Your task to perform on an android device: set the stopwatch Image 0: 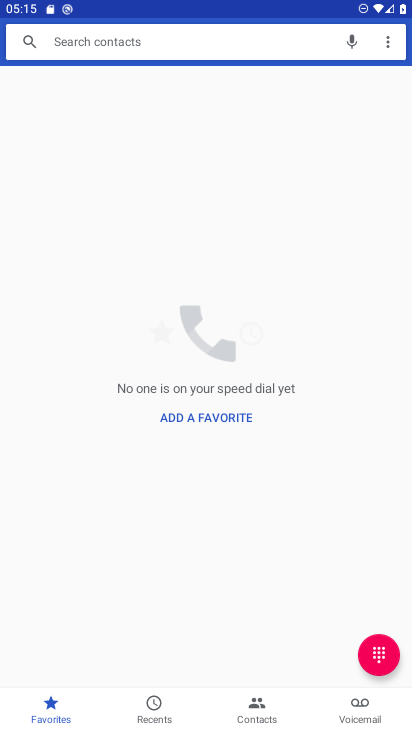
Step 0: press home button
Your task to perform on an android device: set the stopwatch Image 1: 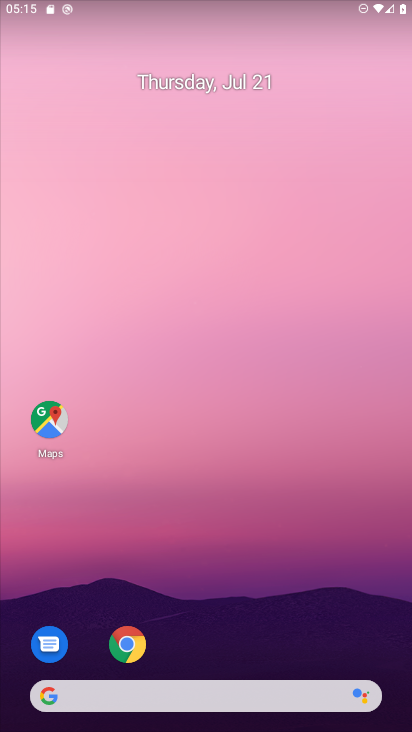
Step 1: drag from (211, 621) to (210, 41)
Your task to perform on an android device: set the stopwatch Image 2: 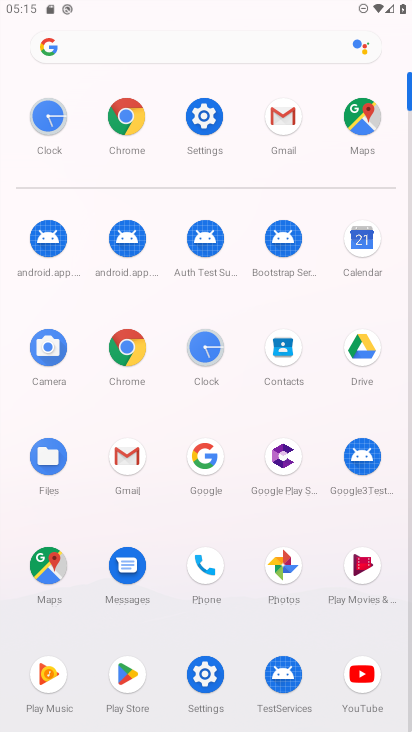
Step 2: click (202, 354)
Your task to perform on an android device: set the stopwatch Image 3: 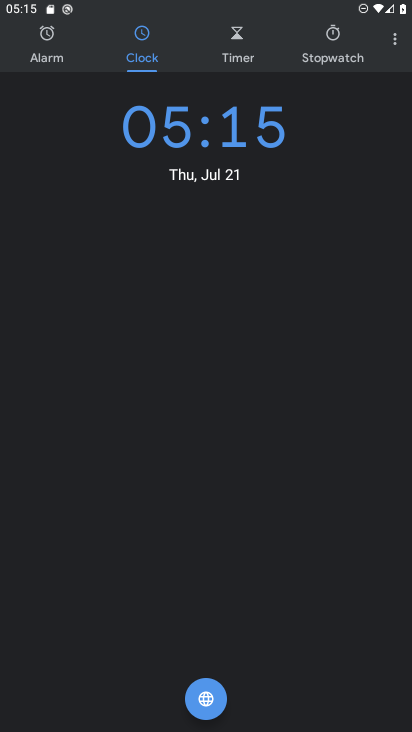
Step 3: click (337, 45)
Your task to perform on an android device: set the stopwatch Image 4: 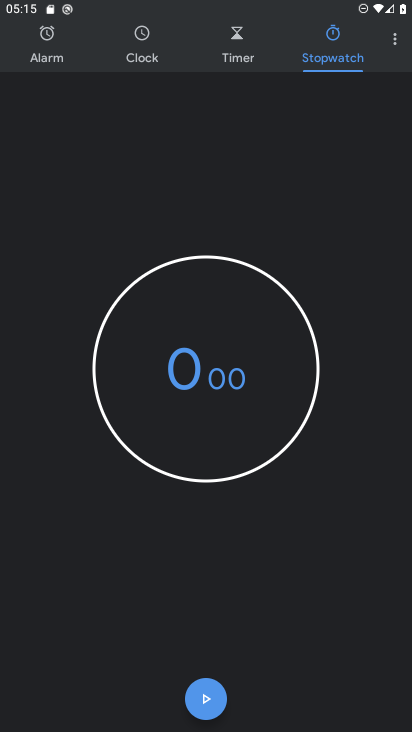
Step 4: click (197, 690)
Your task to perform on an android device: set the stopwatch Image 5: 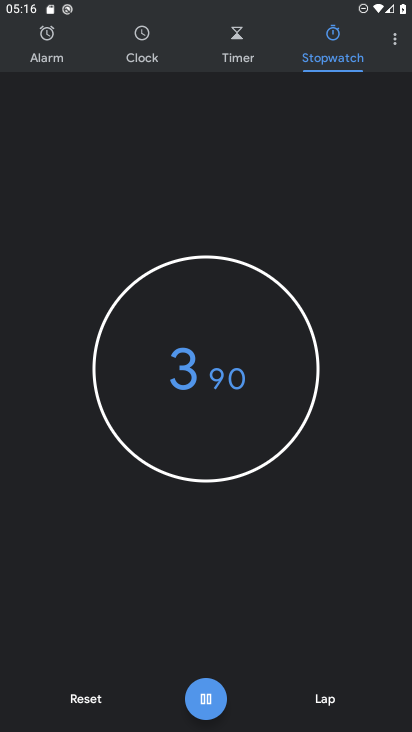
Step 5: click (197, 690)
Your task to perform on an android device: set the stopwatch Image 6: 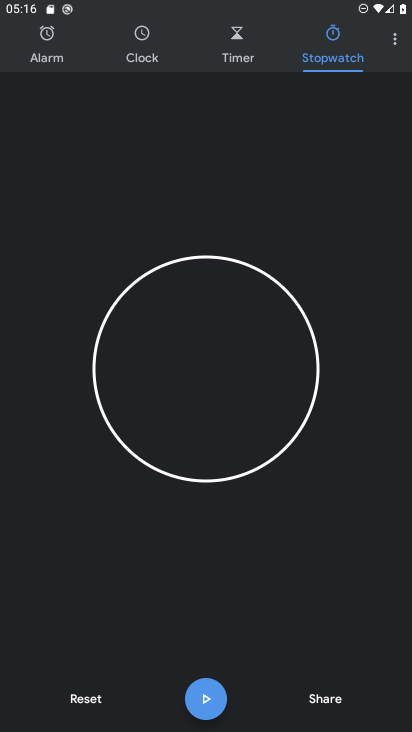
Step 6: task complete